Your task to perform on an android device: turn on sleep mode Image 0: 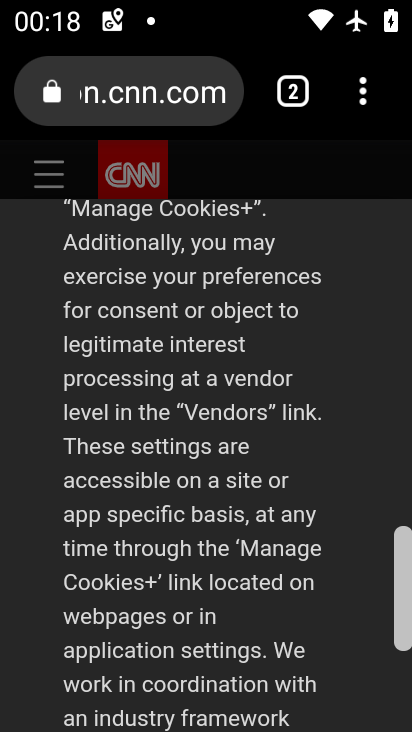
Step 0: press home button
Your task to perform on an android device: turn on sleep mode Image 1: 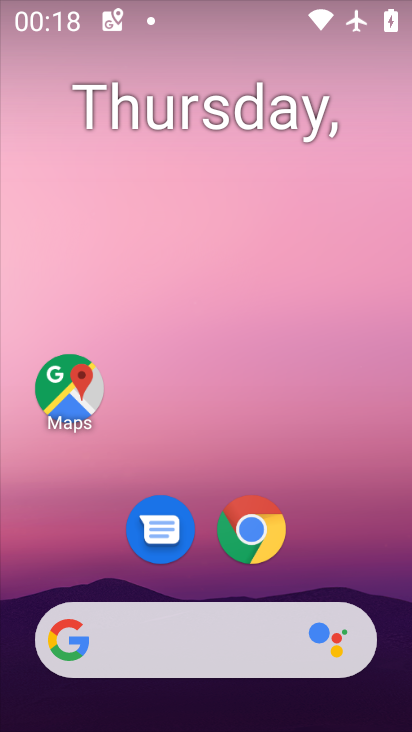
Step 1: drag from (402, 628) to (302, 136)
Your task to perform on an android device: turn on sleep mode Image 2: 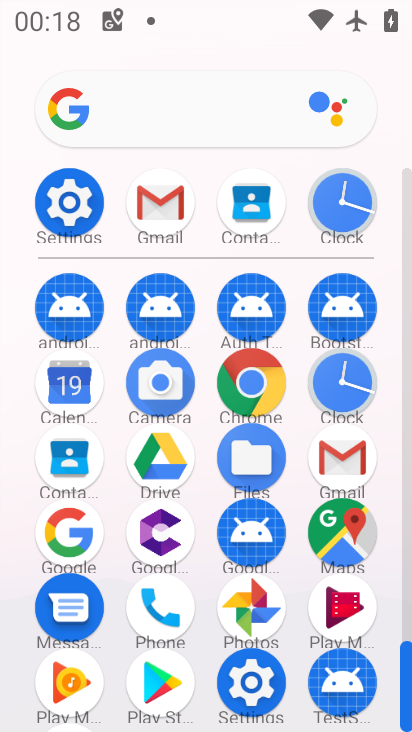
Step 2: click (403, 634)
Your task to perform on an android device: turn on sleep mode Image 3: 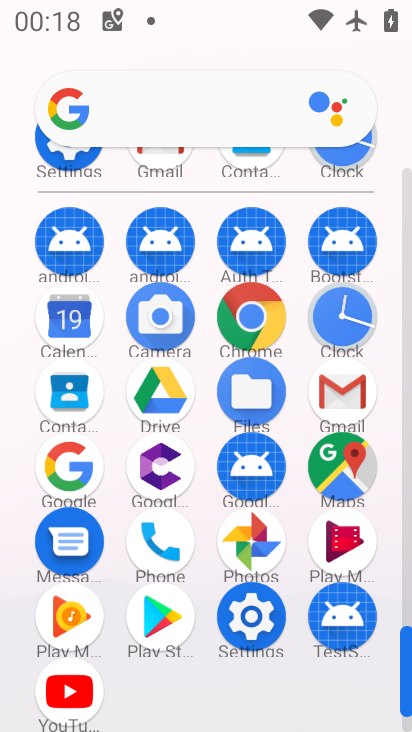
Step 3: click (252, 614)
Your task to perform on an android device: turn on sleep mode Image 4: 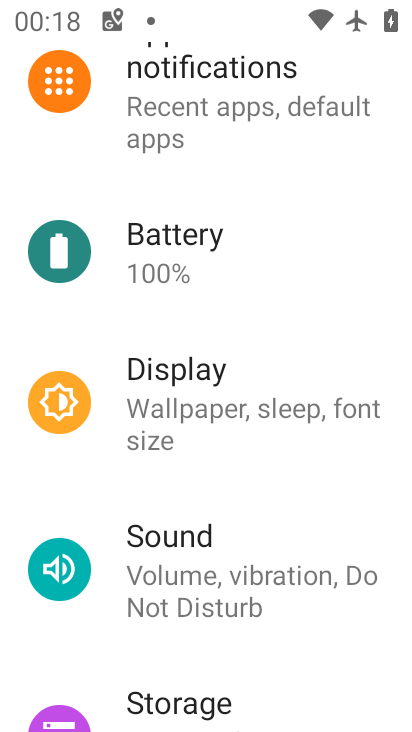
Step 4: click (197, 389)
Your task to perform on an android device: turn on sleep mode Image 5: 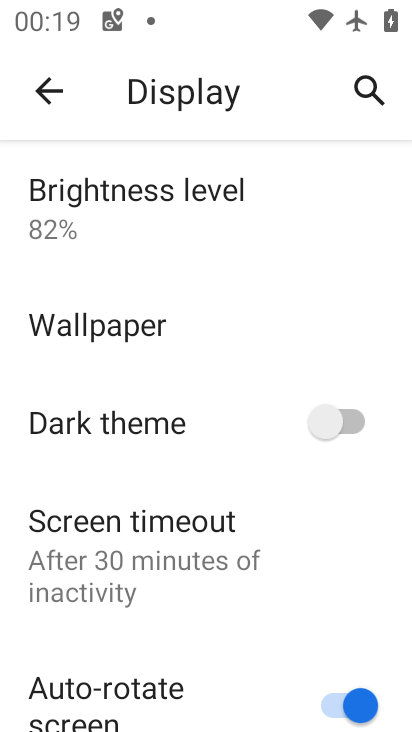
Step 5: drag from (259, 627) to (234, 298)
Your task to perform on an android device: turn on sleep mode Image 6: 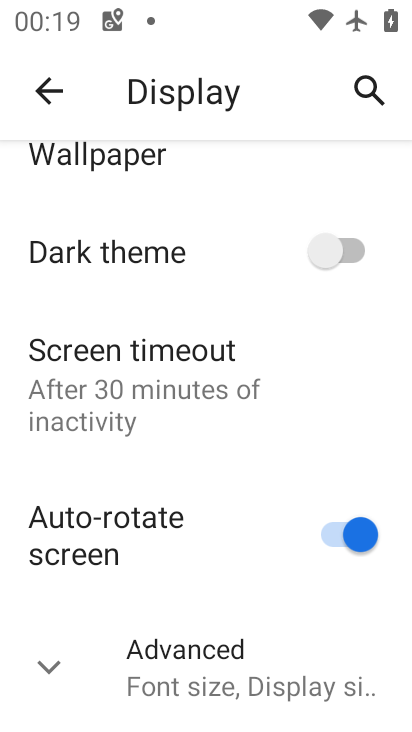
Step 6: click (49, 659)
Your task to perform on an android device: turn on sleep mode Image 7: 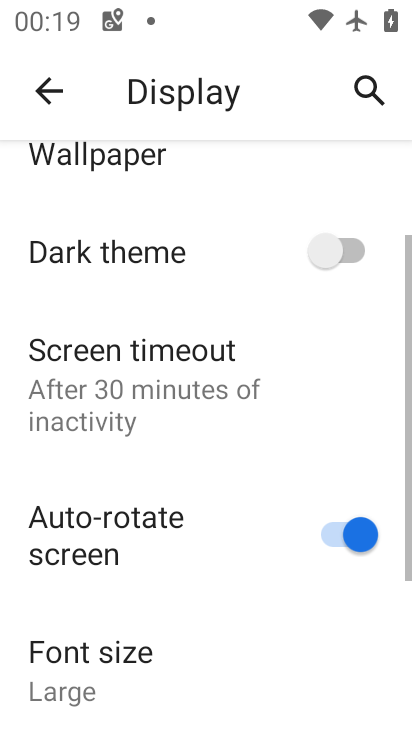
Step 7: task complete